Your task to perform on an android device: Go to location settings Image 0: 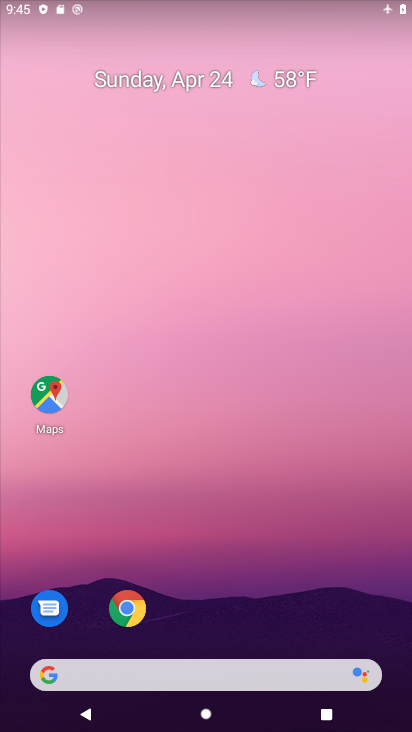
Step 0: drag from (371, 532) to (360, 62)
Your task to perform on an android device: Go to location settings Image 1: 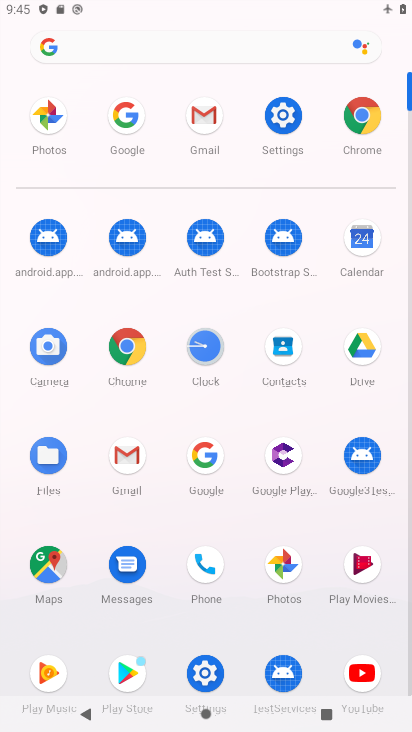
Step 1: click (283, 114)
Your task to perform on an android device: Go to location settings Image 2: 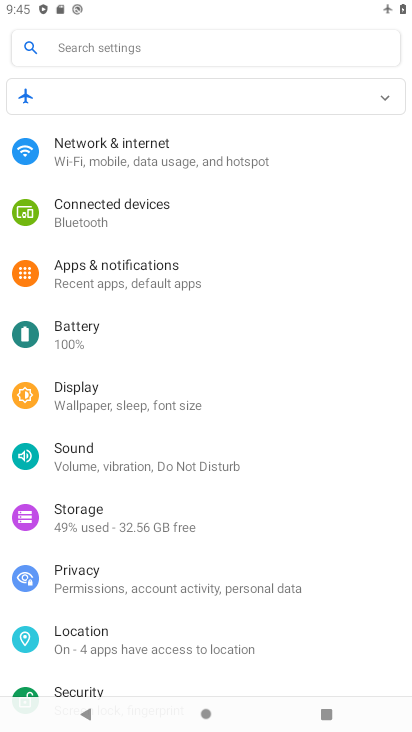
Step 2: drag from (173, 584) to (238, 153)
Your task to perform on an android device: Go to location settings Image 3: 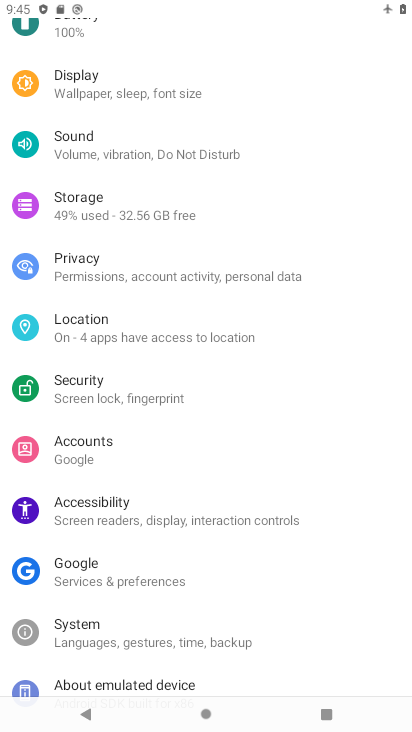
Step 3: click (94, 326)
Your task to perform on an android device: Go to location settings Image 4: 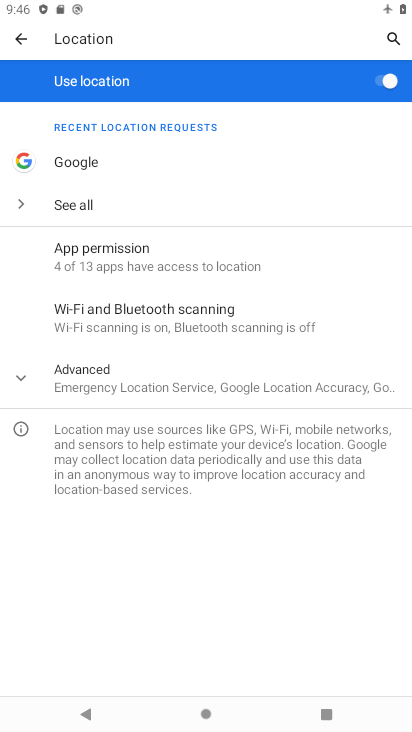
Step 4: task complete